Your task to perform on an android device: Go to Maps Image 0: 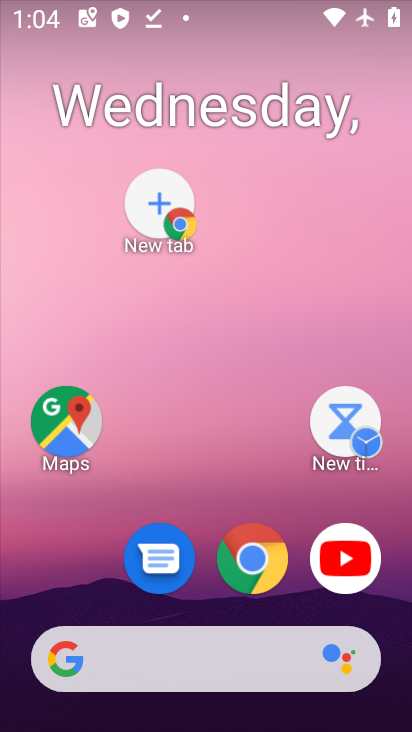
Step 0: drag from (251, 676) to (179, 142)
Your task to perform on an android device: Go to Maps Image 1: 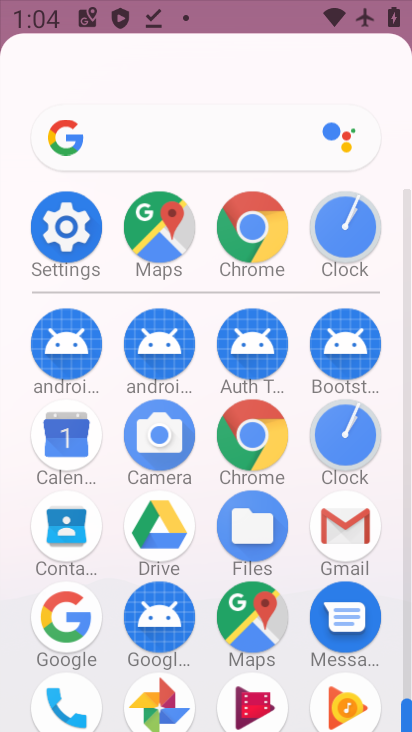
Step 1: drag from (299, 597) to (217, 97)
Your task to perform on an android device: Go to Maps Image 2: 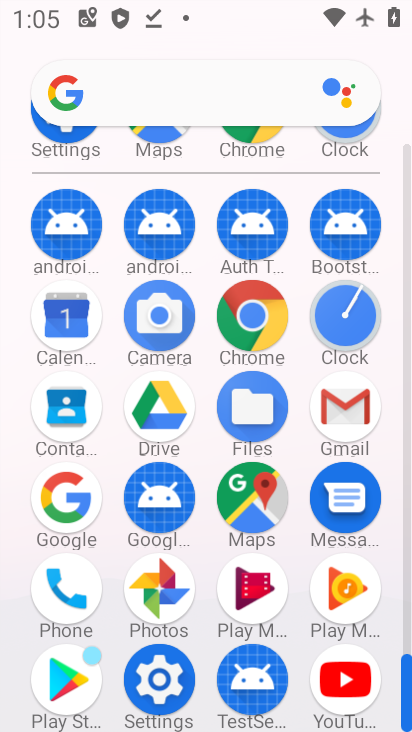
Step 2: click (249, 503)
Your task to perform on an android device: Go to Maps Image 3: 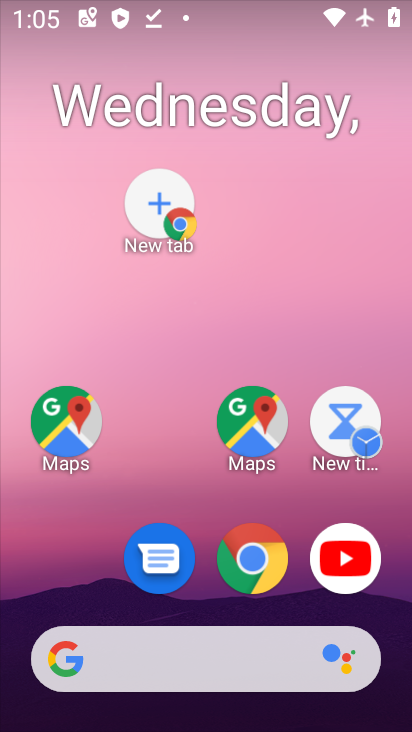
Step 3: click (254, 433)
Your task to perform on an android device: Go to Maps Image 4: 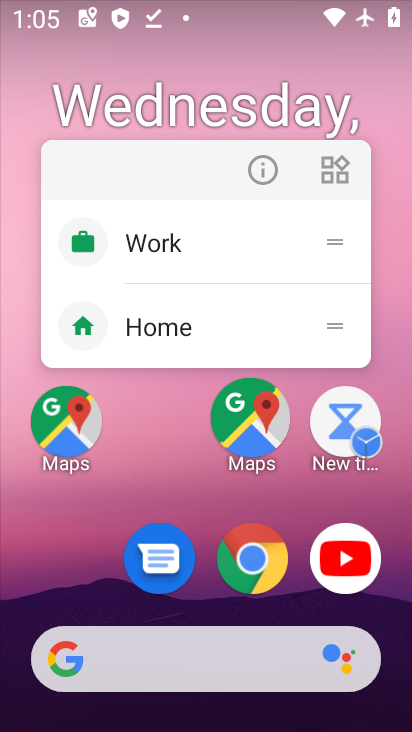
Step 4: click (252, 429)
Your task to perform on an android device: Go to Maps Image 5: 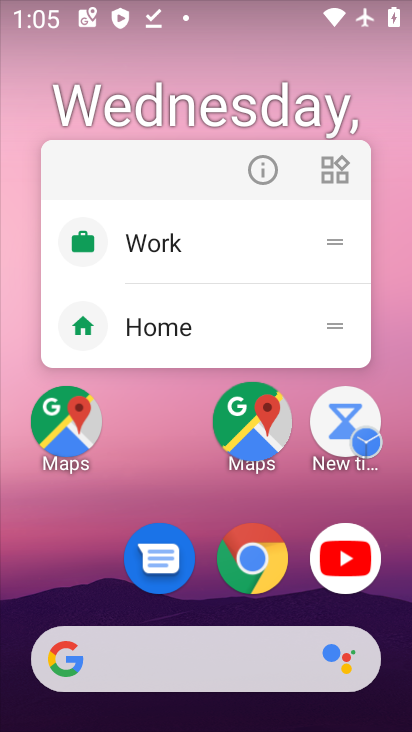
Step 5: click (260, 418)
Your task to perform on an android device: Go to Maps Image 6: 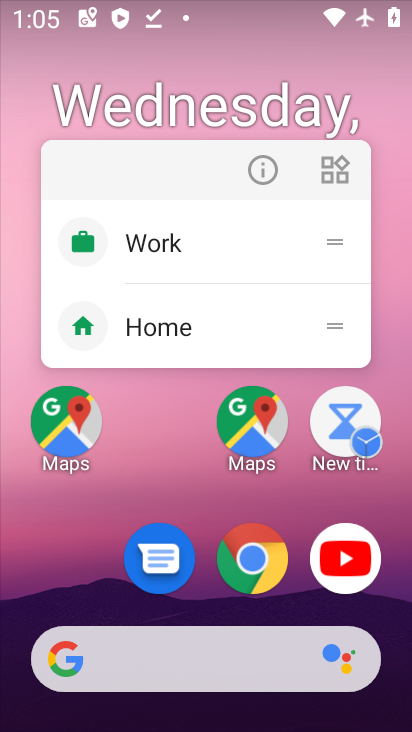
Step 6: drag from (284, 658) to (146, 287)
Your task to perform on an android device: Go to Maps Image 7: 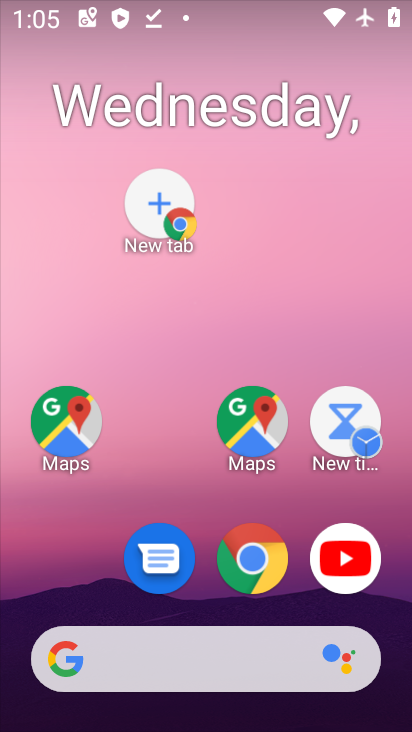
Step 7: drag from (222, 479) to (90, 19)
Your task to perform on an android device: Go to Maps Image 8: 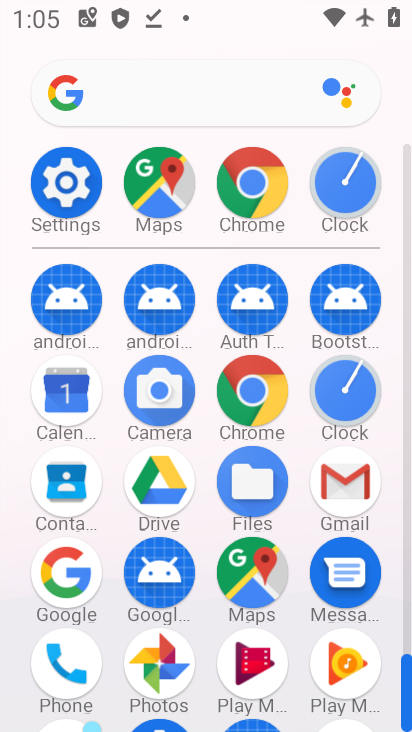
Step 8: drag from (231, 610) to (180, 355)
Your task to perform on an android device: Go to Maps Image 9: 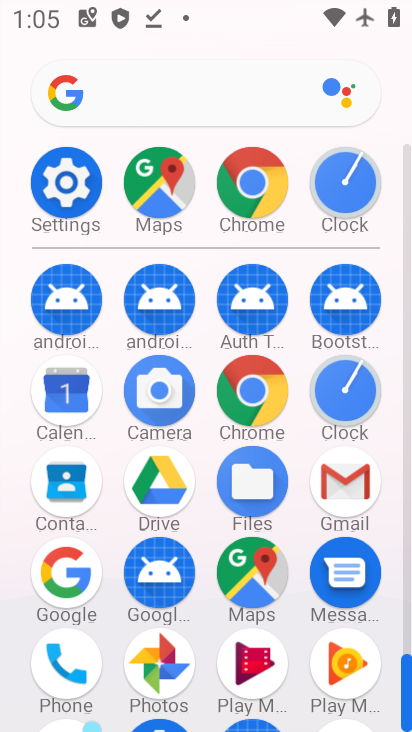
Step 9: click (138, 198)
Your task to perform on an android device: Go to Maps Image 10: 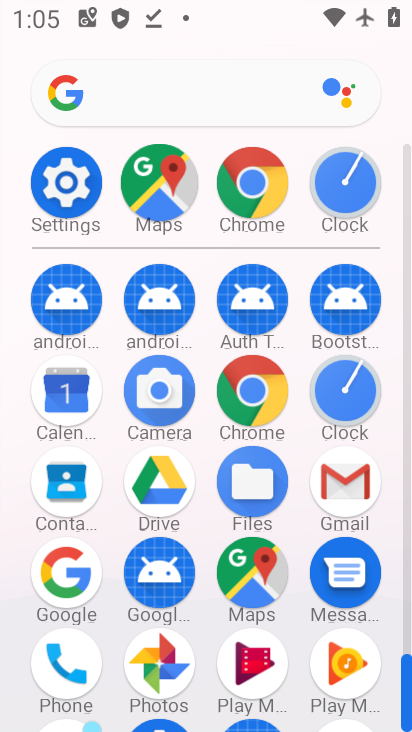
Step 10: click (143, 188)
Your task to perform on an android device: Go to Maps Image 11: 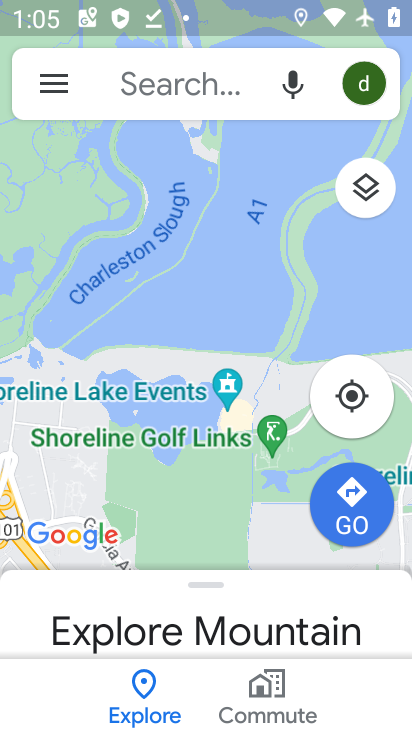
Step 11: task complete